Your task to perform on an android device: Go to Google maps Image 0: 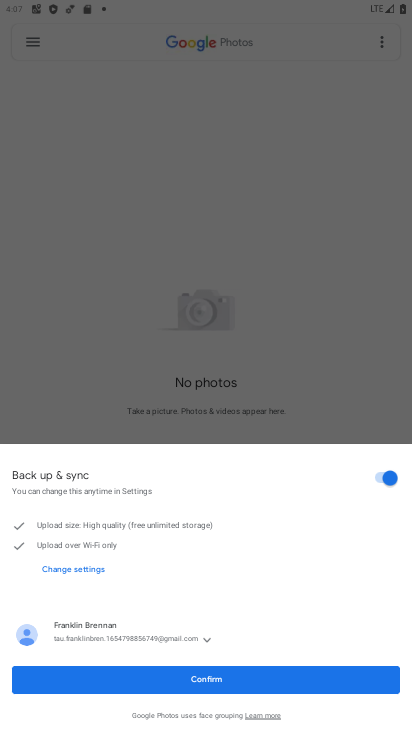
Step 0: press home button
Your task to perform on an android device: Go to Google maps Image 1: 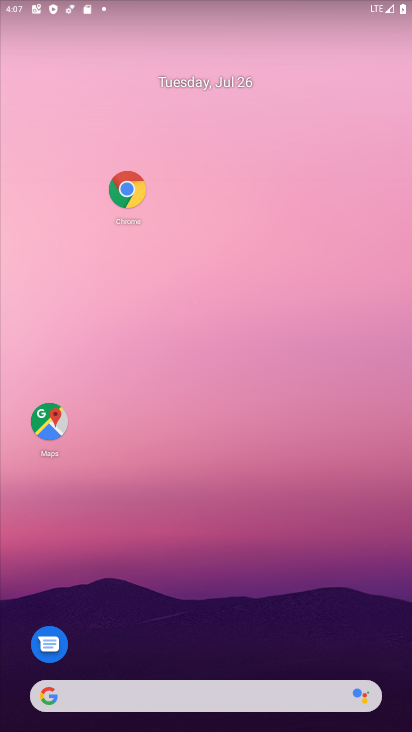
Step 1: click (45, 422)
Your task to perform on an android device: Go to Google maps Image 2: 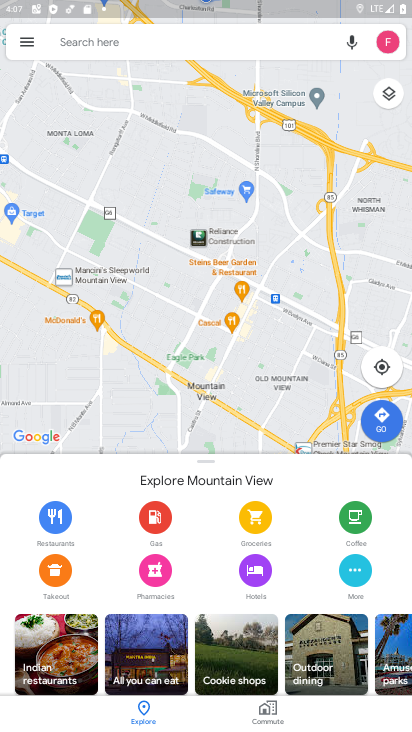
Step 2: task complete